Your task to perform on an android device: Open the phone app and click the voicemail tab. Image 0: 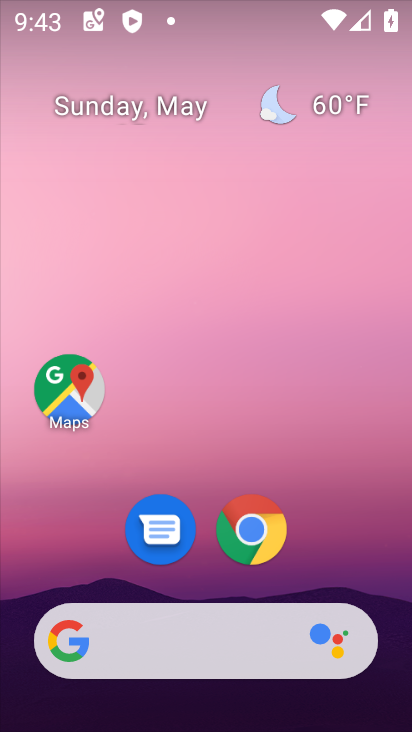
Step 0: drag from (361, 531) to (359, 163)
Your task to perform on an android device: Open the phone app and click the voicemail tab. Image 1: 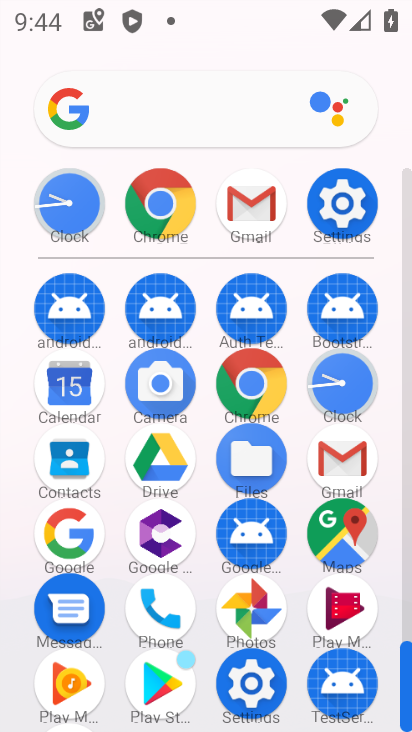
Step 1: click (175, 619)
Your task to perform on an android device: Open the phone app and click the voicemail tab. Image 2: 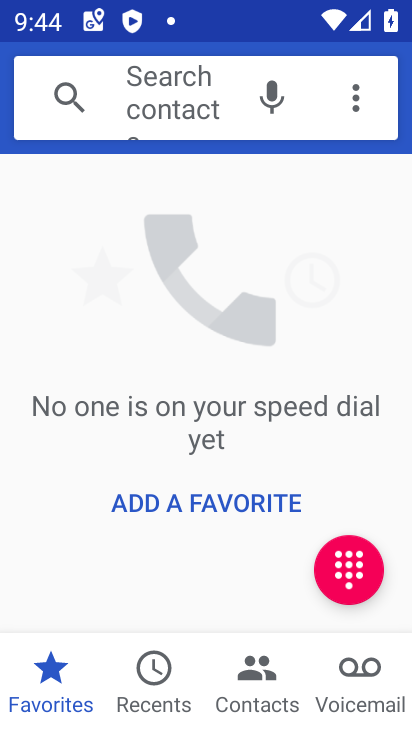
Step 2: click (345, 677)
Your task to perform on an android device: Open the phone app and click the voicemail tab. Image 3: 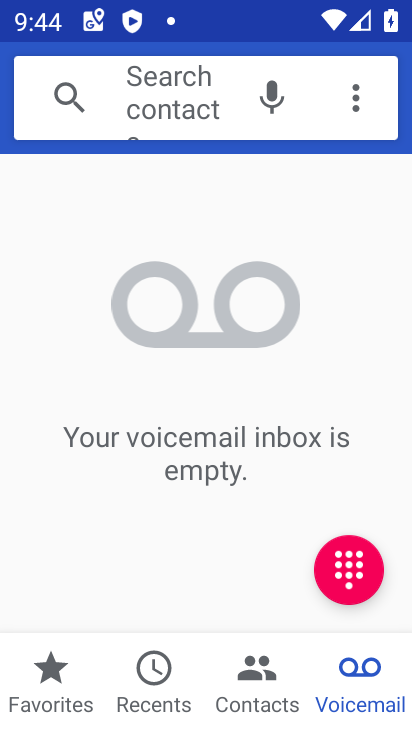
Step 3: task complete